Your task to perform on an android device: turn pop-ups on in chrome Image 0: 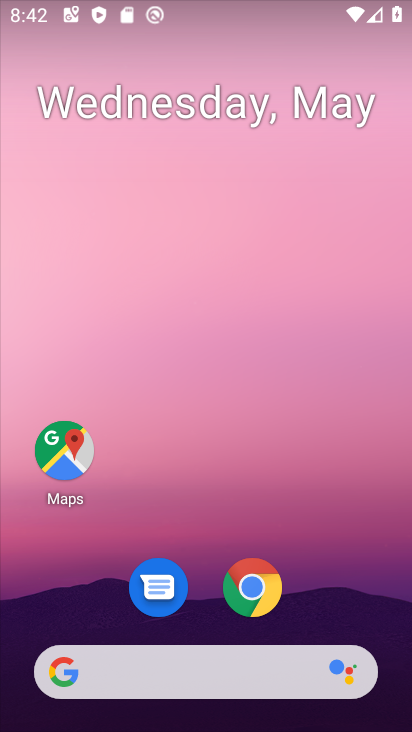
Step 0: click (254, 592)
Your task to perform on an android device: turn pop-ups on in chrome Image 1: 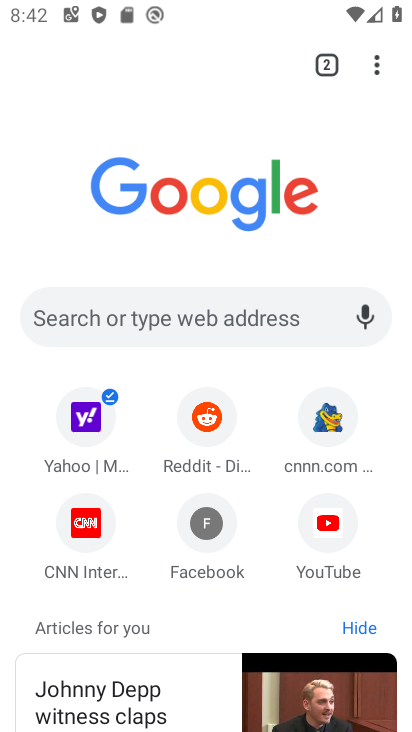
Step 1: click (375, 73)
Your task to perform on an android device: turn pop-ups on in chrome Image 2: 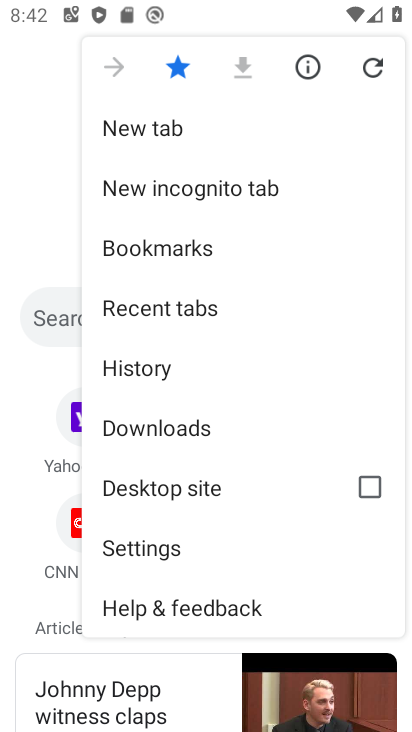
Step 2: click (138, 546)
Your task to perform on an android device: turn pop-ups on in chrome Image 3: 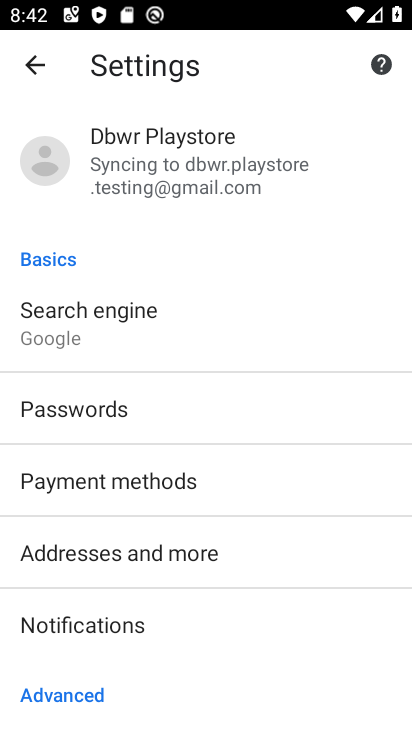
Step 3: drag from (228, 645) to (281, 170)
Your task to perform on an android device: turn pop-ups on in chrome Image 4: 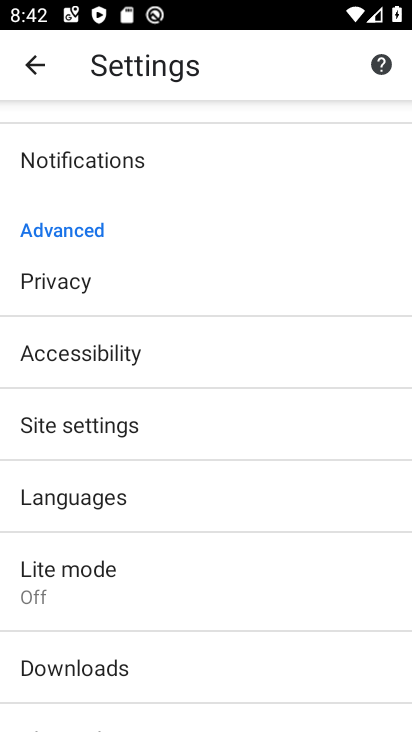
Step 4: click (74, 414)
Your task to perform on an android device: turn pop-ups on in chrome Image 5: 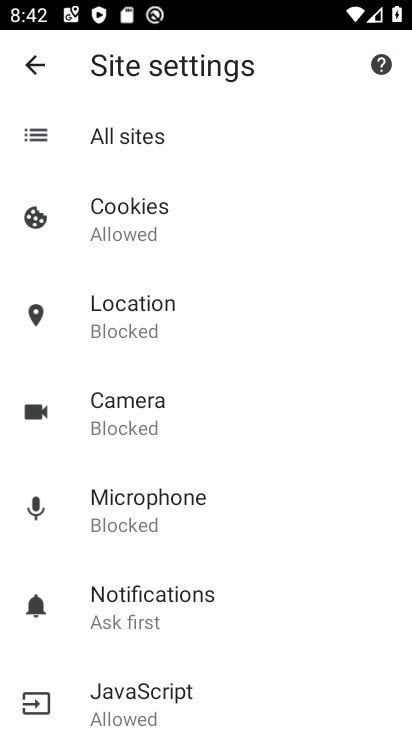
Step 5: drag from (261, 687) to (230, 217)
Your task to perform on an android device: turn pop-ups on in chrome Image 6: 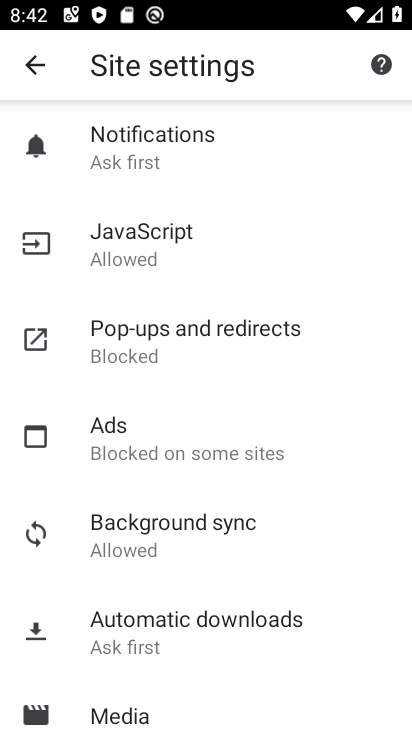
Step 6: click (154, 370)
Your task to perform on an android device: turn pop-ups on in chrome Image 7: 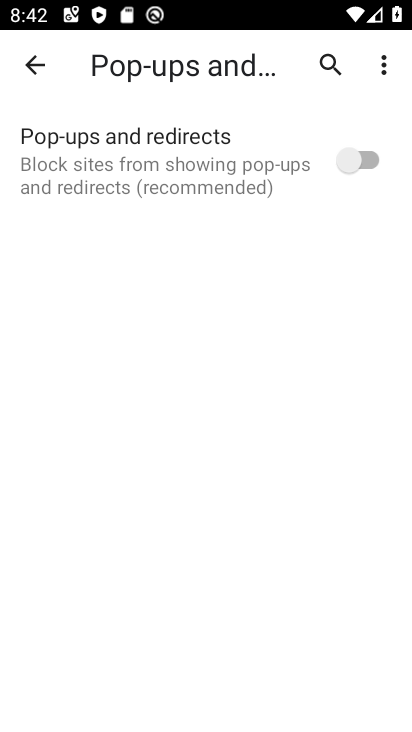
Step 7: click (373, 154)
Your task to perform on an android device: turn pop-ups on in chrome Image 8: 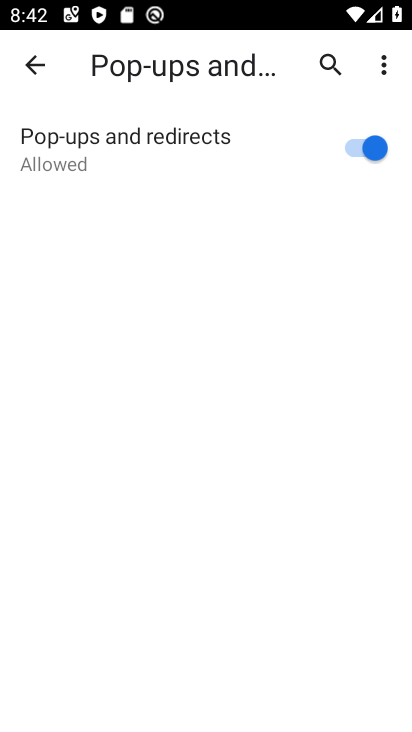
Step 8: task complete